Your task to perform on an android device: Open Yahoo.com Image 0: 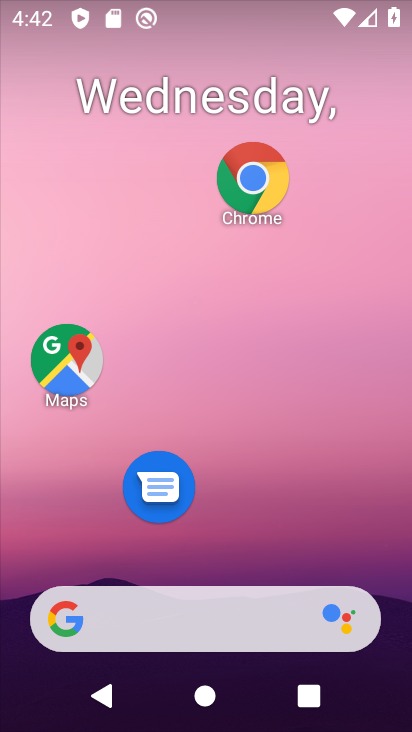
Step 0: click (253, 182)
Your task to perform on an android device: Open Yahoo.com Image 1: 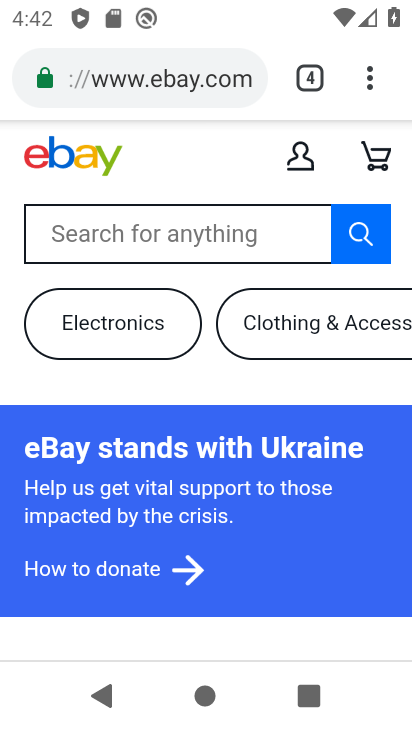
Step 1: click (132, 93)
Your task to perform on an android device: Open Yahoo.com Image 2: 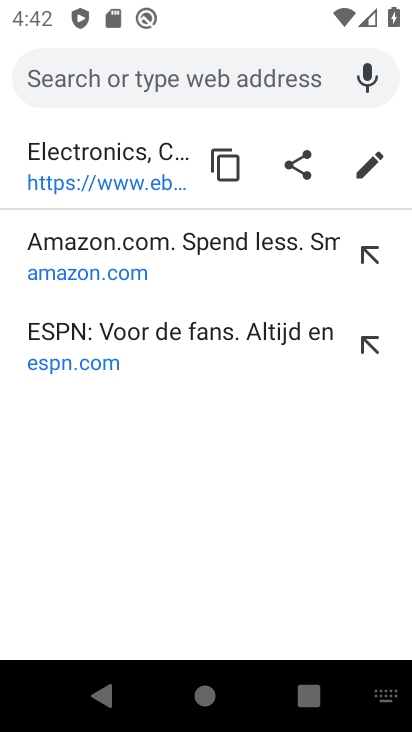
Step 2: type "yahoo.com"
Your task to perform on an android device: Open Yahoo.com Image 3: 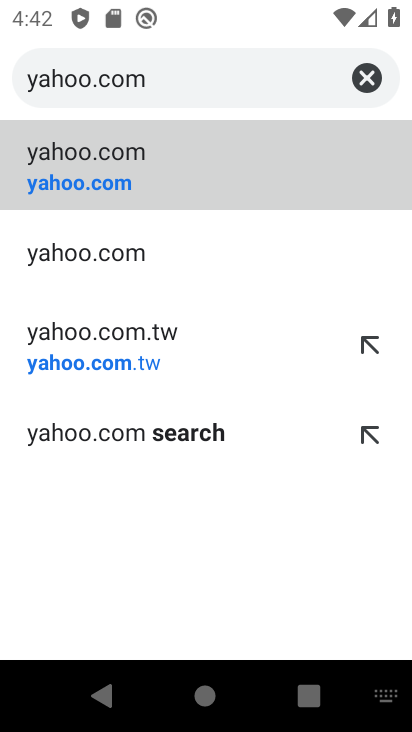
Step 3: click (113, 183)
Your task to perform on an android device: Open Yahoo.com Image 4: 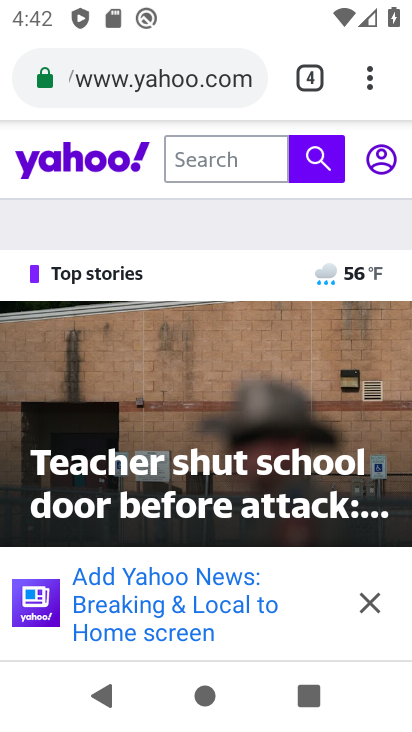
Step 4: task complete